Your task to perform on an android device: turn off picture-in-picture Image 0: 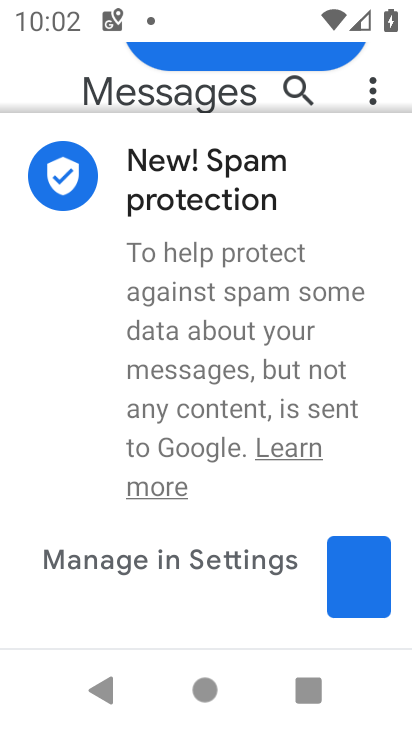
Step 0: press home button
Your task to perform on an android device: turn off picture-in-picture Image 1: 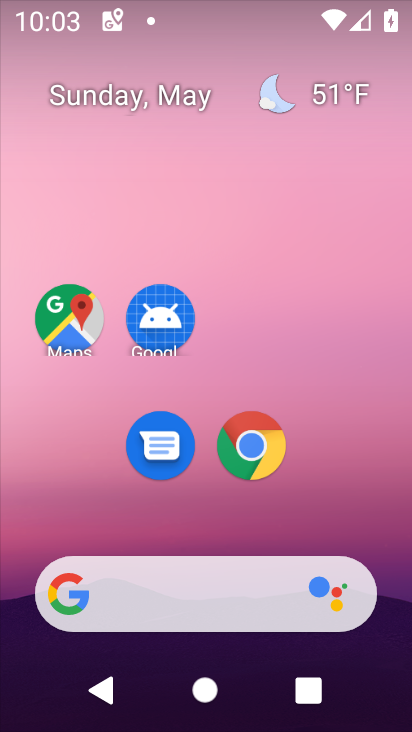
Step 1: drag from (320, 489) to (225, 15)
Your task to perform on an android device: turn off picture-in-picture Image 2: 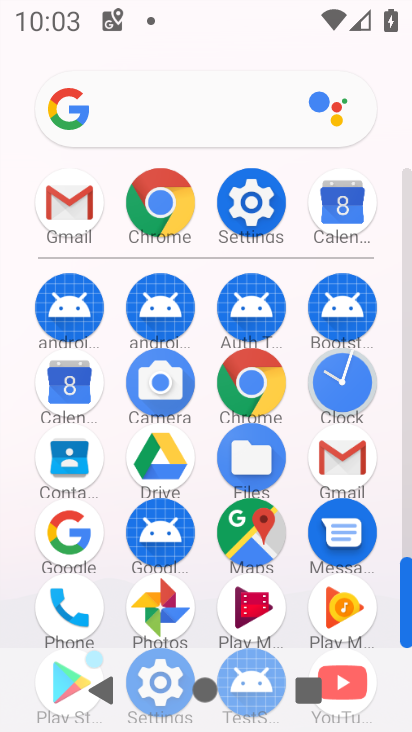
Step 2: click (263, 201)
Your task to perform on an android device: turn off picture-in-picture Image 3: 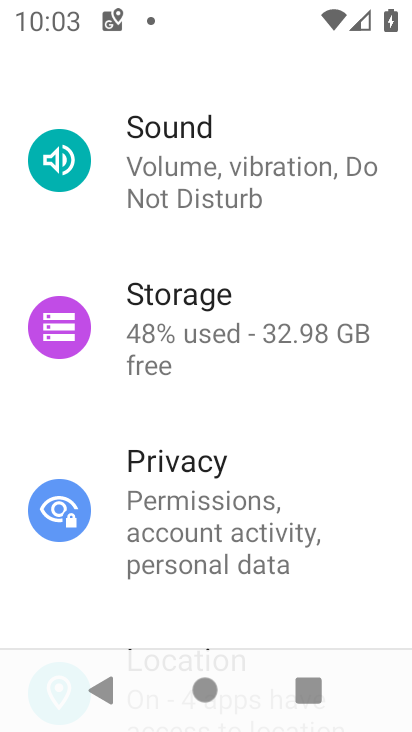
Step 3: drag from (266, 425) to (327, 724)
Your task to perform on an android device: turn off picture-in-picture Image 4: 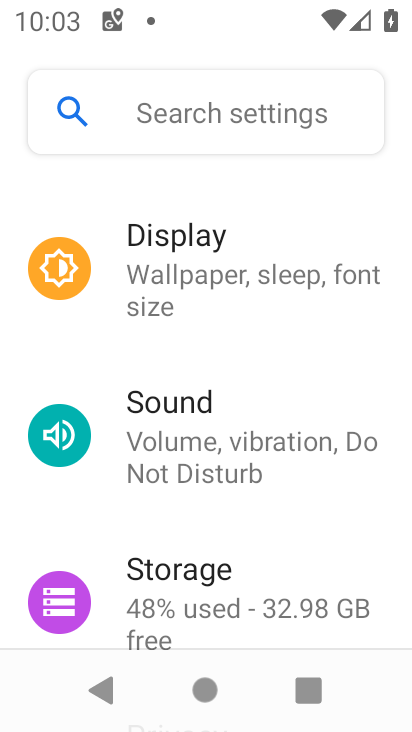
Step 4: drag from (255, 331) to (326, 729)
Your task to perform on an android device: turn off picture-in-picture Image 5: 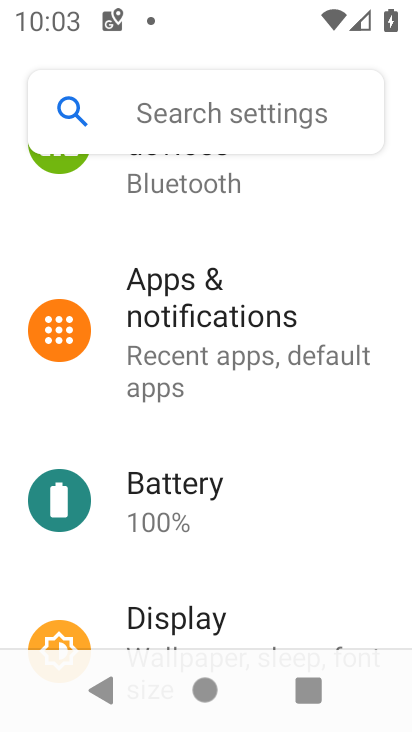
Step 5: drag from (141, 447) to (221, 718)
Your task to perform on an android device: turn off picture-in-picture Image 6: 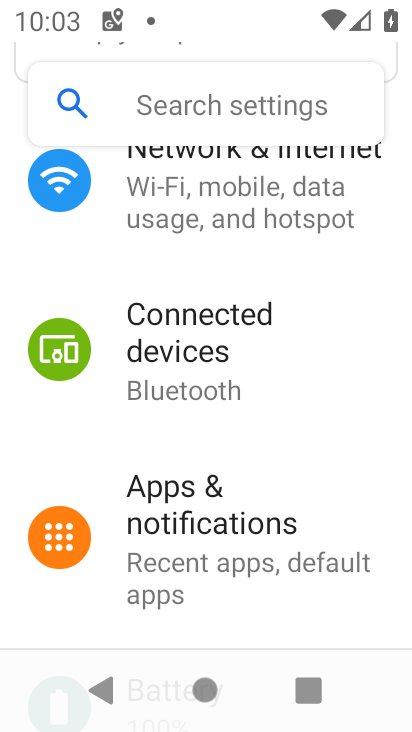
Step 6: click (172, 496)
Your task to perform on an android device: turn off picture-in-picture Image 7: 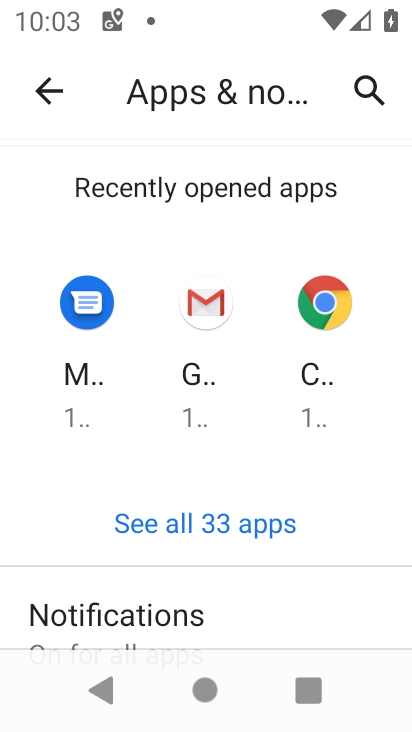
Step 7: drag from (83, 500) to (69, 291)
Your task to perform on an android device: turn off picture-in-picture Image 8: 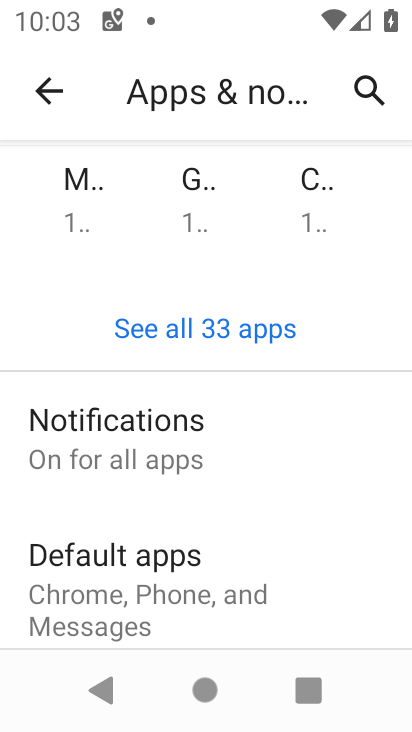
Step 8: drag from (163, 490) to (111, 143)
Your task to perform on an android device: turn off picture-in-picture Image 9: 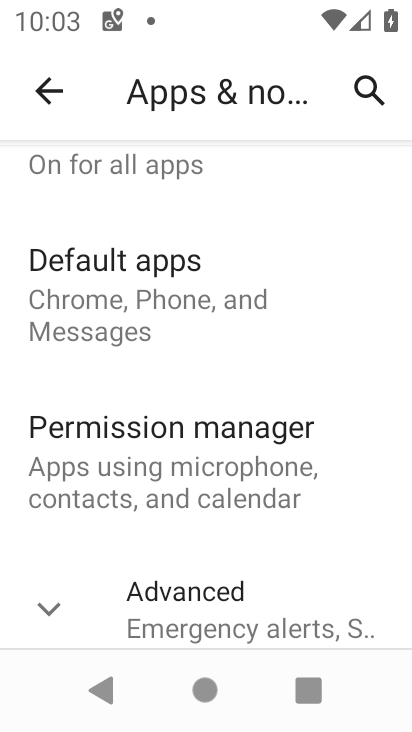
Step 9: drag from (216, 527) to (130, 149)
Your task to perform on an android device: turn off picture-in-picture Image 10: 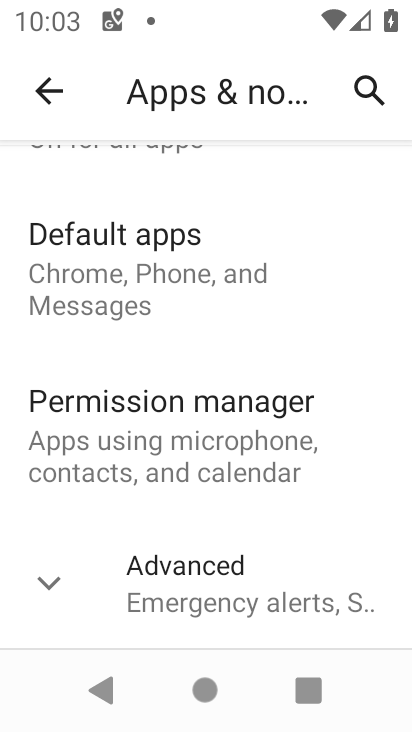
Step 10: click (49, 580)
Your task to perform on an android device: turn off picture-in-picture Image 11: 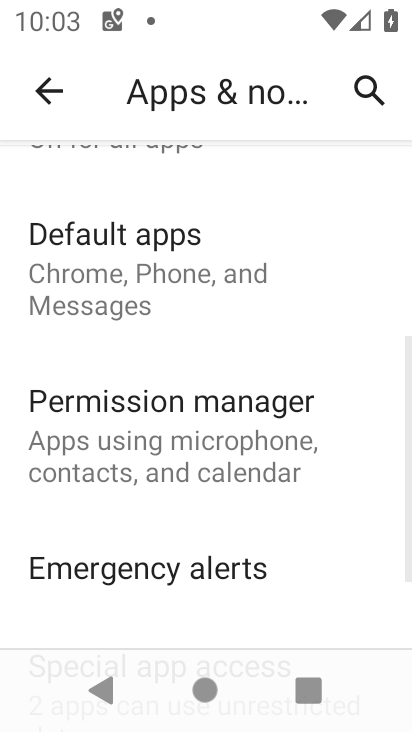
Step 11: drag from (226, 503) to (113, 101)
Your task to perform on an android device: turn off picture-in-picture Image 12: 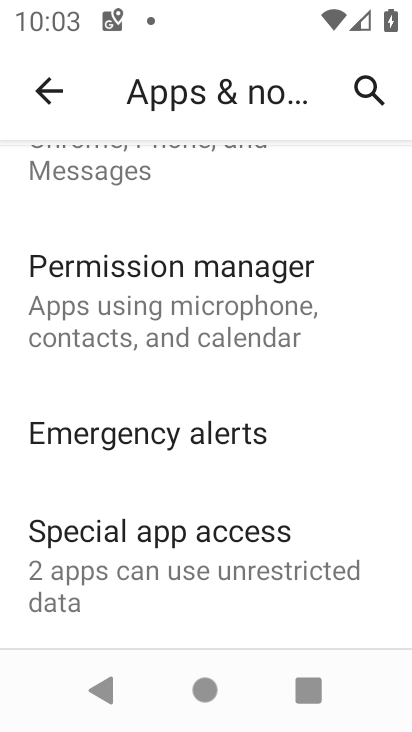
Step 12: click (151, 528)
Your task to perform on an android device: turn off picture-in-picture Image 13: 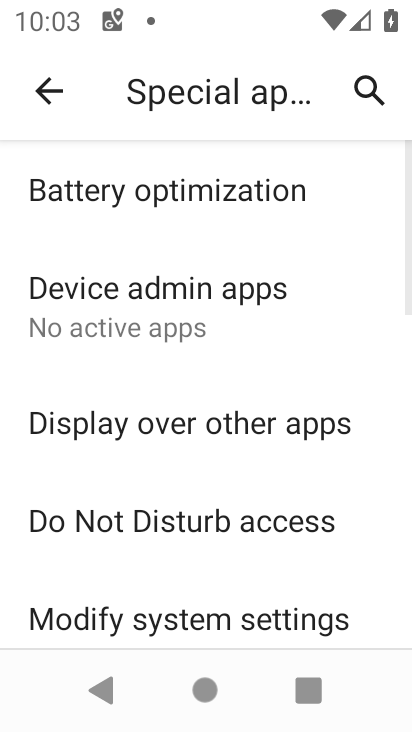
Step 13: drag from (215, 474) to (182, 275)
Your task to perform on an android device: turn off picture-in-picture Image 14: 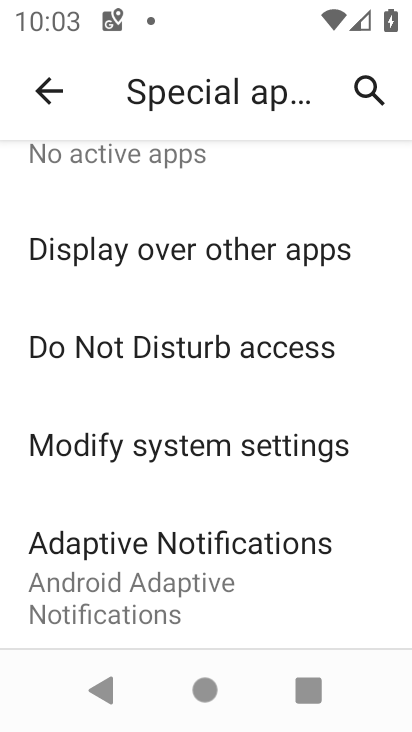
Step 14: drag from (175, 476) to (143, 249)
Your task to perform on an android device: turn off picture-in-picture Image 15: 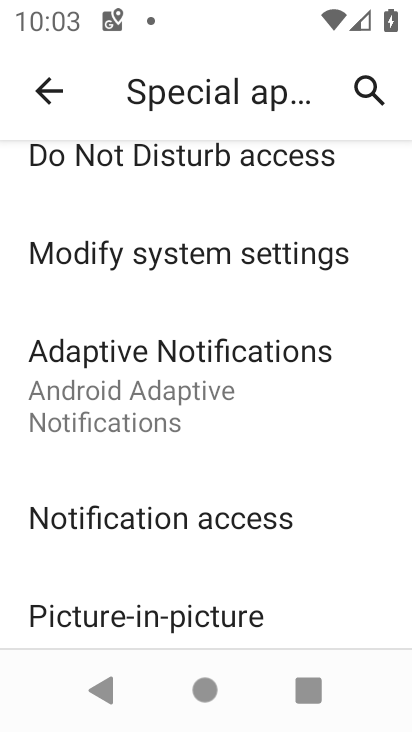
Step 15: drag from (127, 522) to (87, 184)
Your task to perform on an android device: turn off picture-in-picture Image 16: 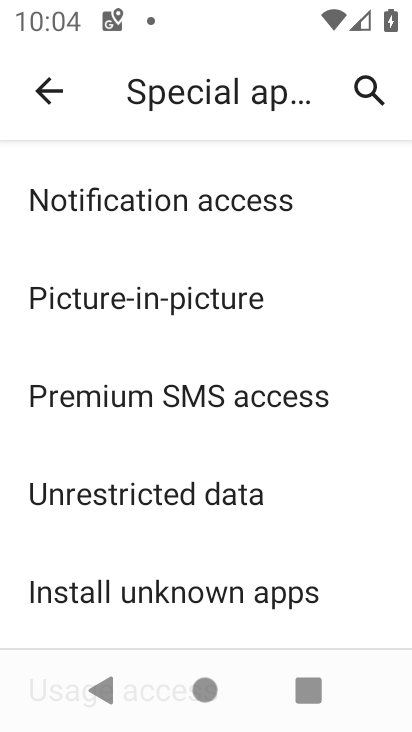
Step 16: click (98, 299)
Your task to perform on an android device: turn off picture-in-picture Image 17: 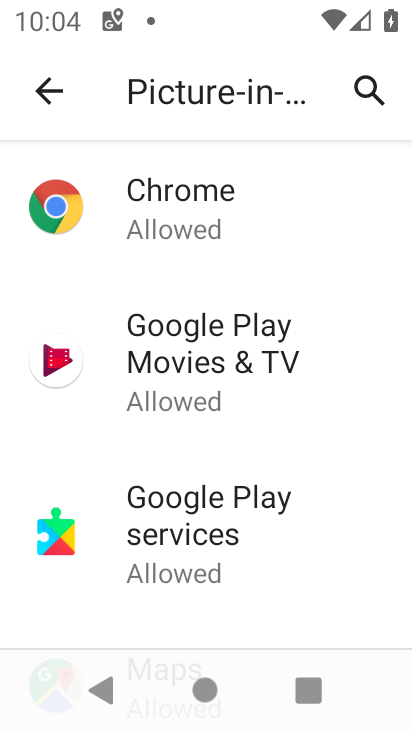
Step 17: click (177, 213)
Your task to perform on an android device: turn off picture-in-picture Image 18: 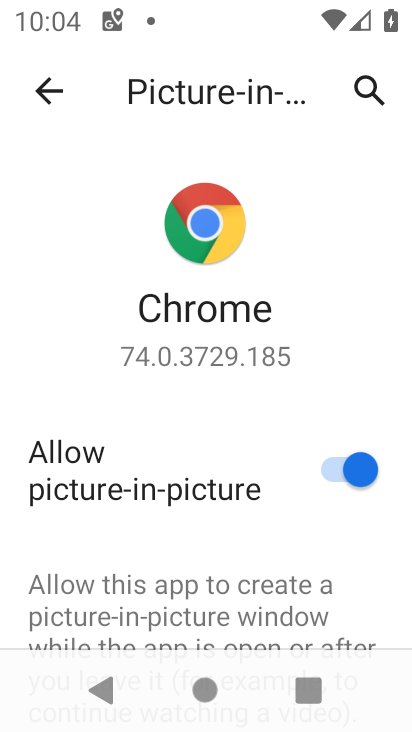
Step 18: click (351, 464)
Your task to perform on an android device: turn off picture-in-picture Image 19: 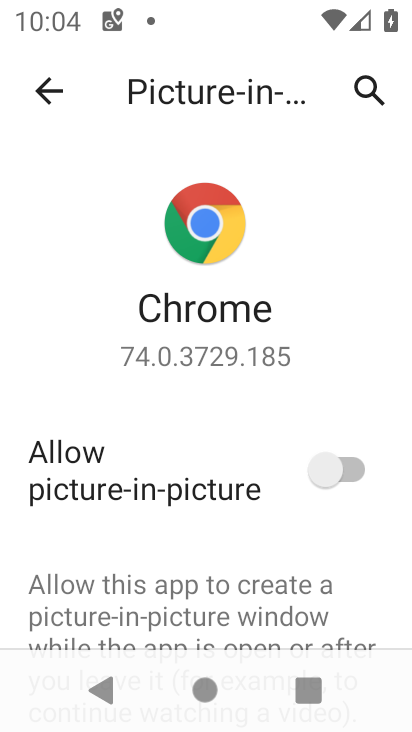
Step 19: click (41, 84)
Your task to perform on an android device: turn off picture-in-picture Image 20: 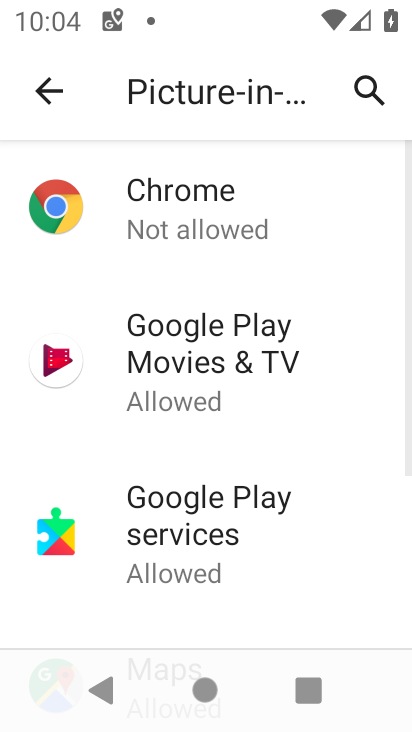
Step 20: click (154, 375)
Your task to perform on an android device: turn off picture-in-picture Image 21: 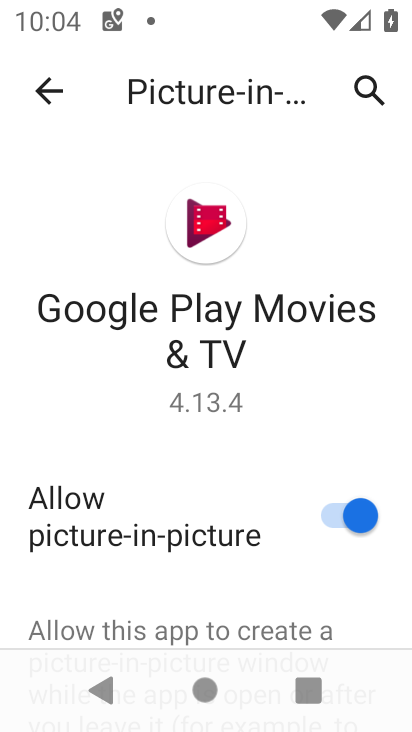
Step 21: click (351, 516)
Your task to perform on an android device: turn off picture-in-picture Image 22: 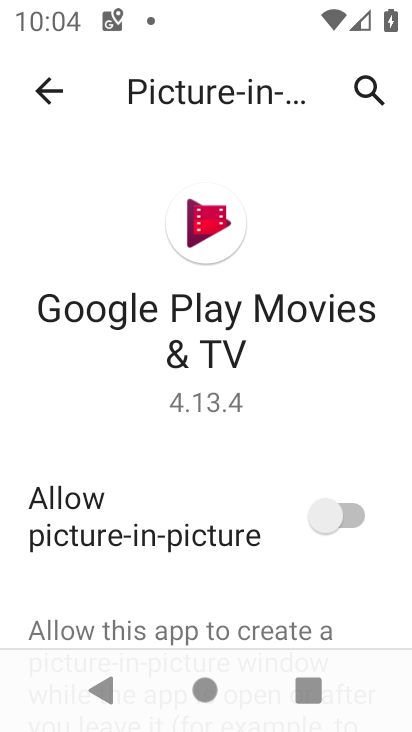
Step 22: click (60, 81)
Your task to perform on an android device: turn off picture-in-picture Image 23: 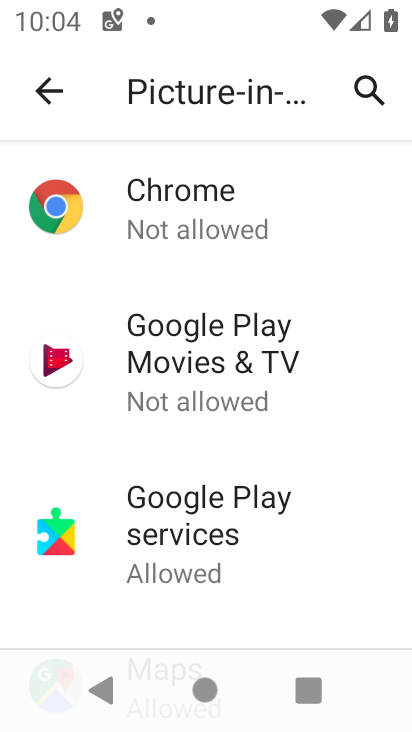
Step 23: click (181, 522)
Your task to perform on an android device: turn off picture-in-picture Image 24: 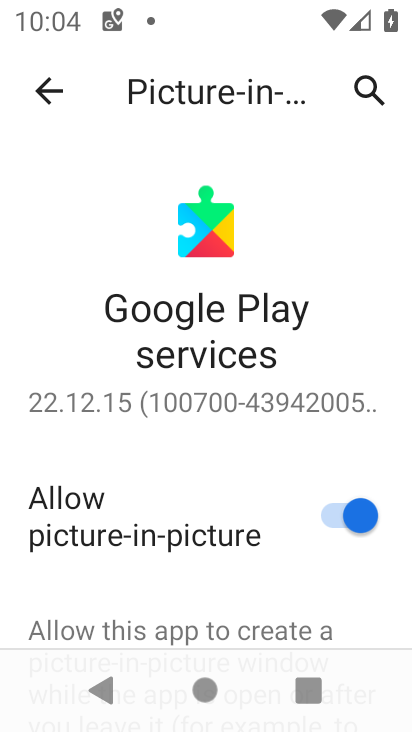
Step 24: click (355, 511)
Your task to perform on an android device: turn off picture-in-picture Image 25: 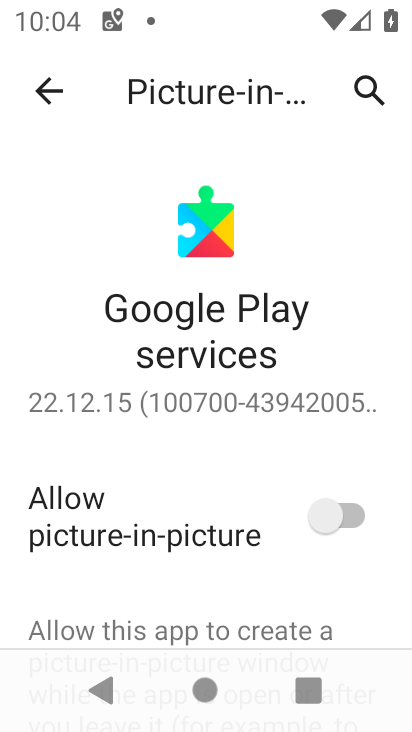
Step 25: click (56, 89)
Your task to perform on an android device: turn off picture-in-picture Image 26: 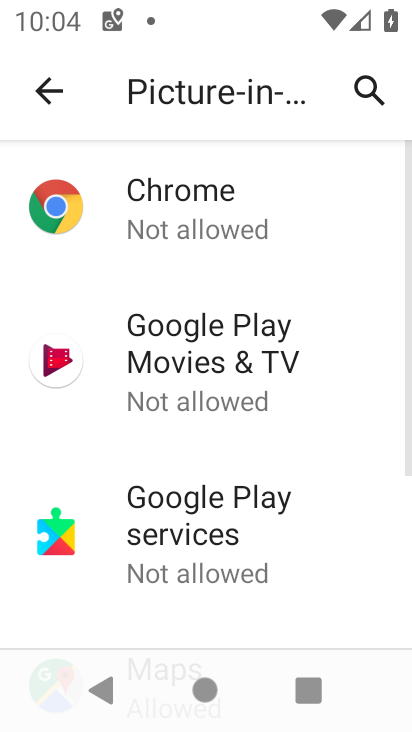
Step 26: drag from (196, 404) to (154, 180)
Your task to perform on an android device: turn off picture-in-picture Image 27: 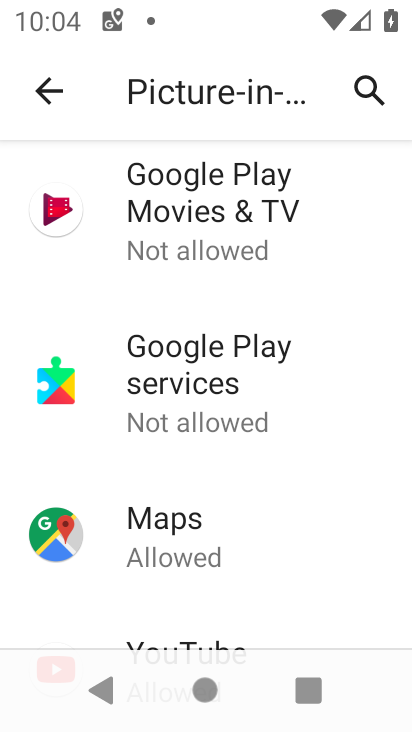
Step 27: click (160, 529)
Your task to perform on an android device: turn off picture-in-picture Image 28: 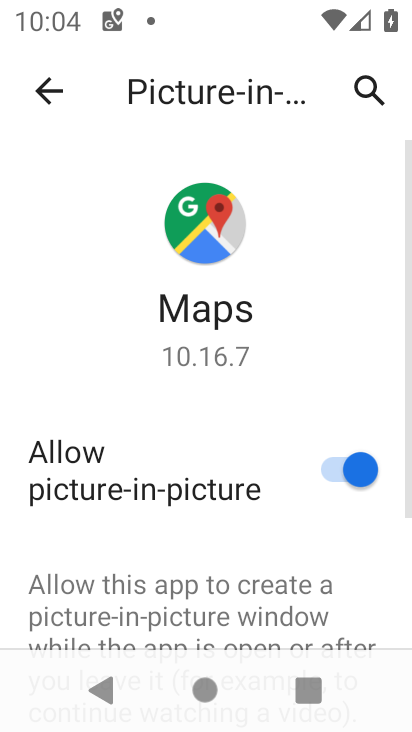
Step 28: click (340, 464)
Your task to perform on an android device: turn off picture-in-picture Image 29: 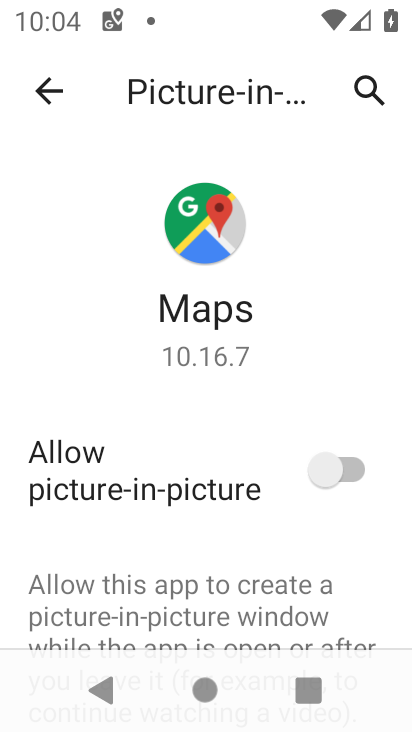
Step 29: click (48, 91)
Your task to perform on an android device: turn off picture-in-picture Image 30: 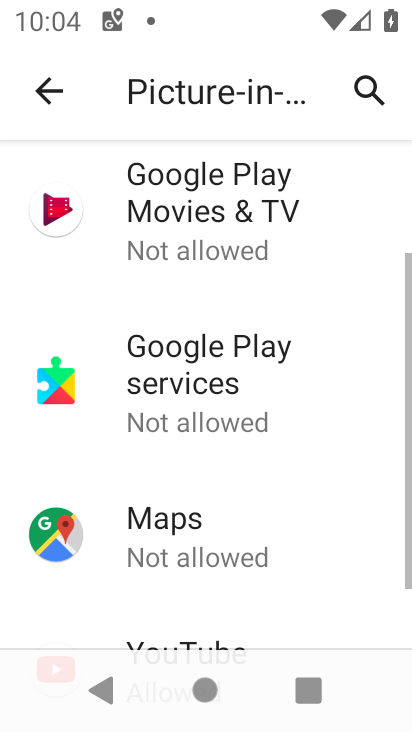
Step 30: drag from (265, 450) to (240, 191)
Your task to perform on an android device: turn off picture-in-picture Image 31: 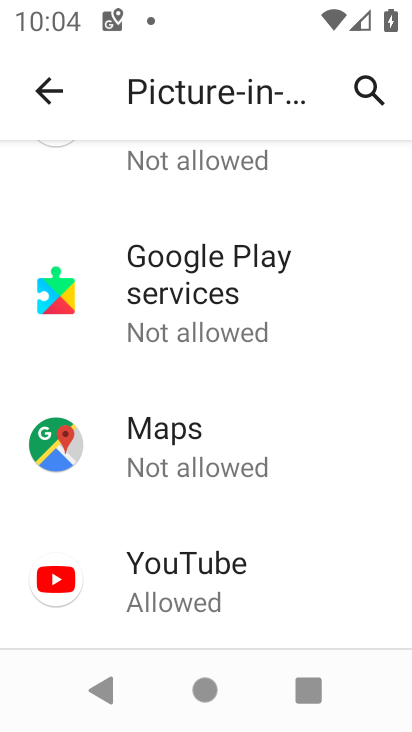
Step 31: click (187, 568)
Your task to perform on an android device: turn off picture-in-picture Image 32: 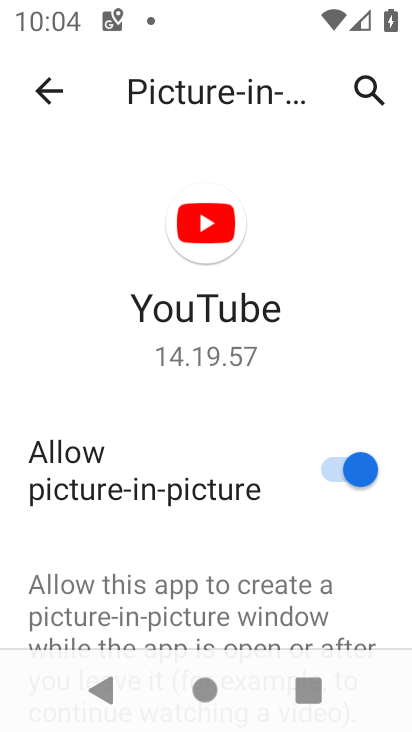
Step 32: click (332, 473)
Your task to perform on an android device: turn off picture-in-picture Image 33: 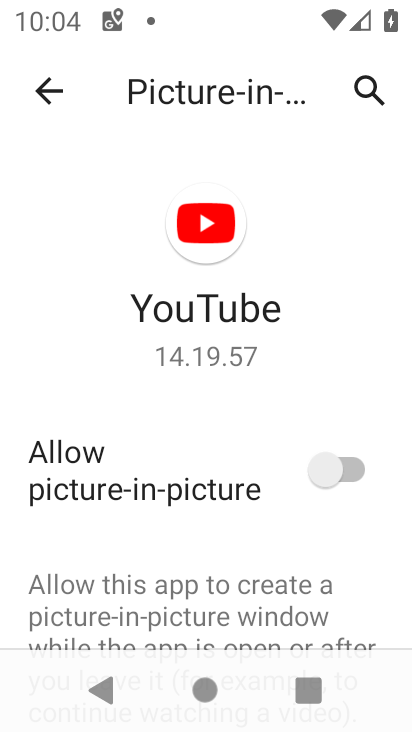
Step 33: click (42, 85)
Your task to perform on an android device: turn off picture-in-picture Image 34: 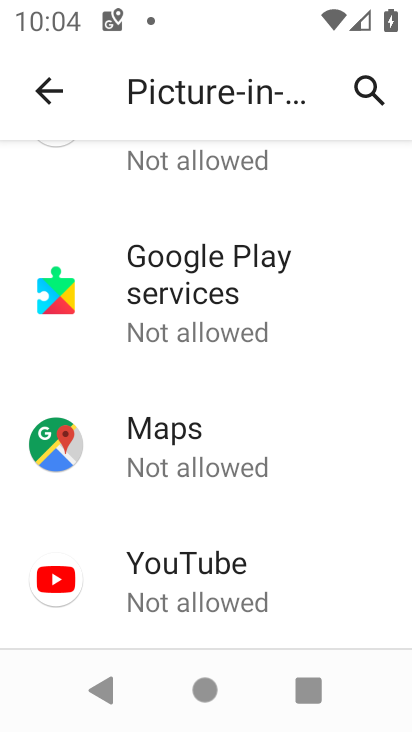
Step 34: task complete